Your task to perform on an android device: Open the phone app and click the voicemail tab. Image 0: 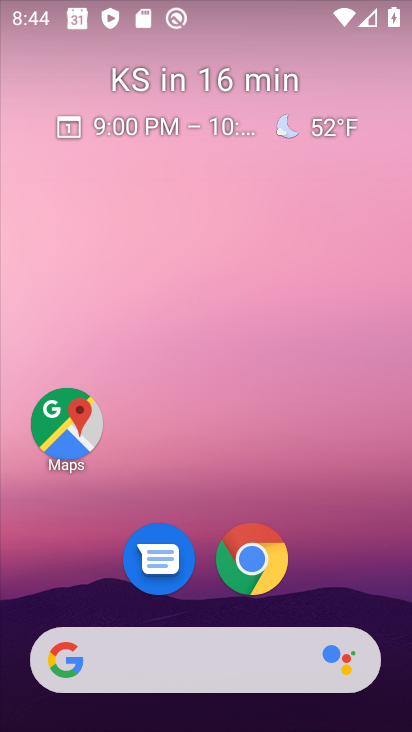
Step 0: drag from (310, 506) to (197, 1)
Your task to perform on an android device: Open the phone app and click the voicemail tab. Image 1: 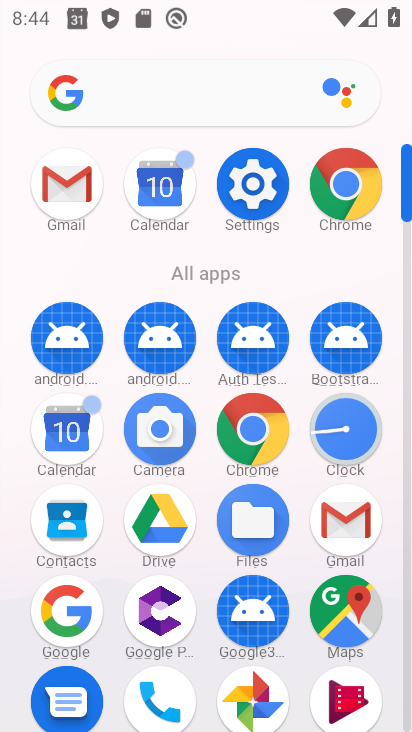
Step 1: drag from (12, 609) to (26, 340)
Your task to perform on an android device: Open the phone app and click the voicemail tab. Image 2: 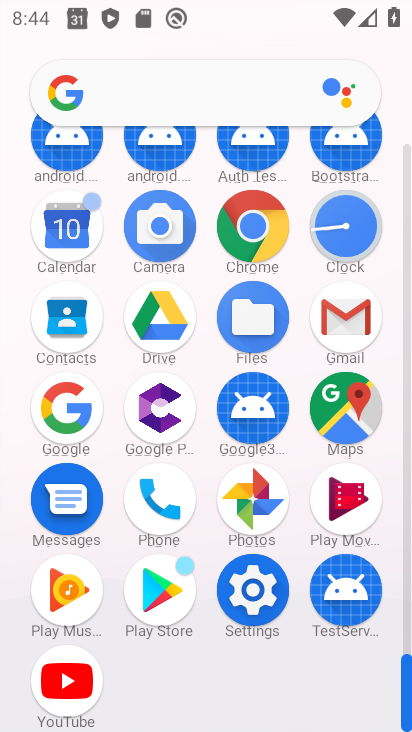
Step 2: click (163, 489)
Your task to perform on an android device: Open the phone app and click the voicemail tab. Image 3: 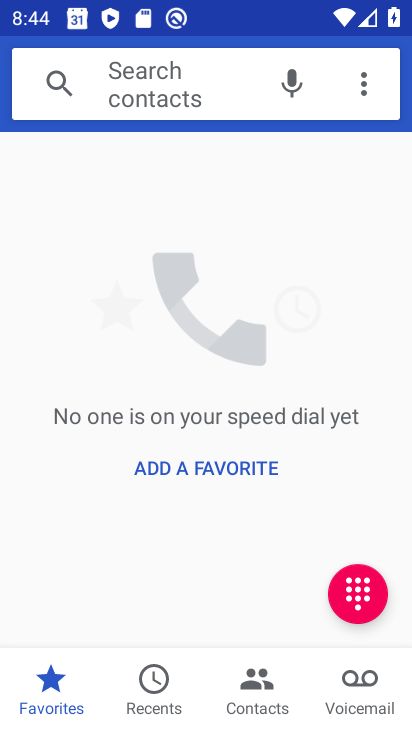
Step 3: click (358, 692)
Your task to perform on an android device: Open the phone app and click the voicemail tab. Image 4: 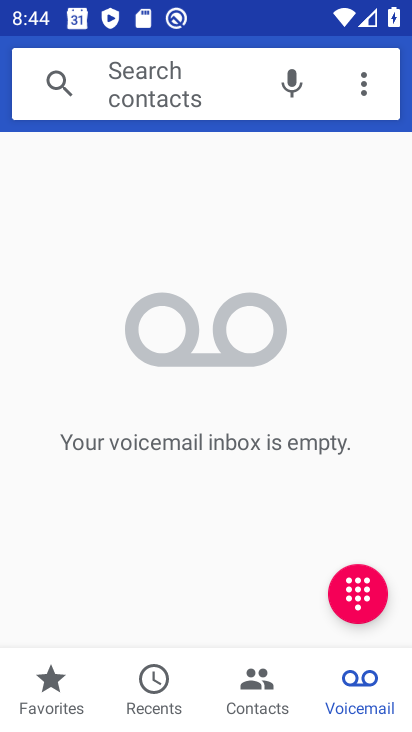
Step 4: task complete